Your task to perform on an android device: see creations saved in the google photos Image 0: 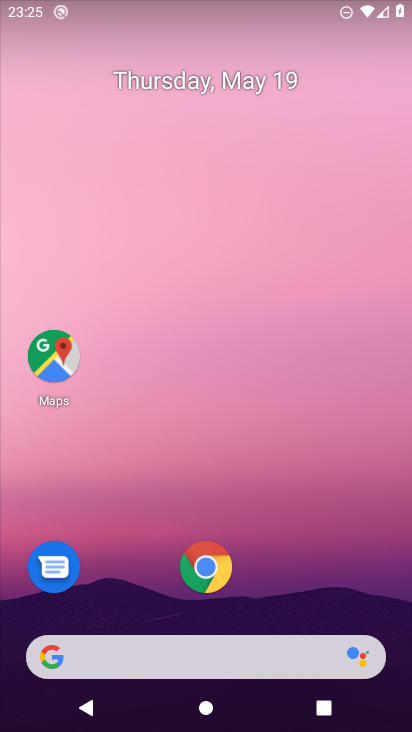
Step 0: press home button
Your task to perform on an android device: see creations saved in the google photos Image 1: 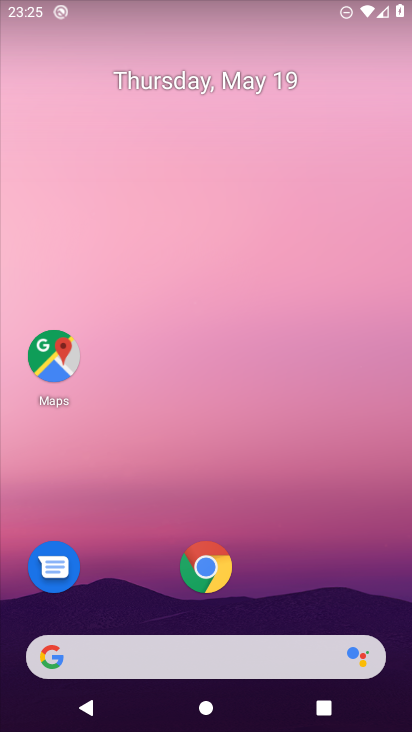
Step 1: drag from (253, 613) to (355, 92)
Your task to perform on an android device: see creations saved in the google photos Image 2: 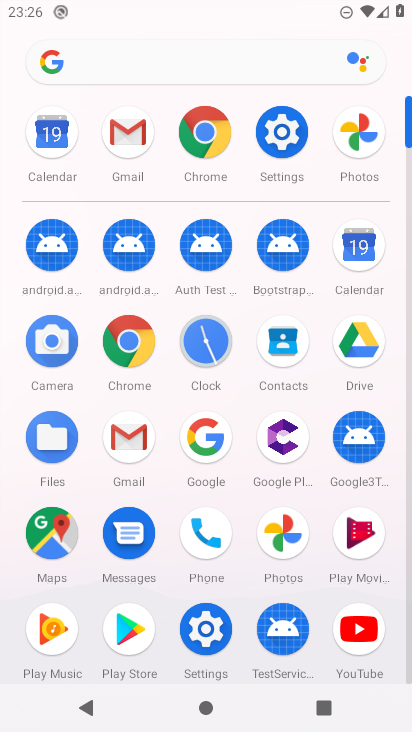
Step 2: click (285, 524)
Your task to perform on an android device: see creations saved in the google photos Image 3: 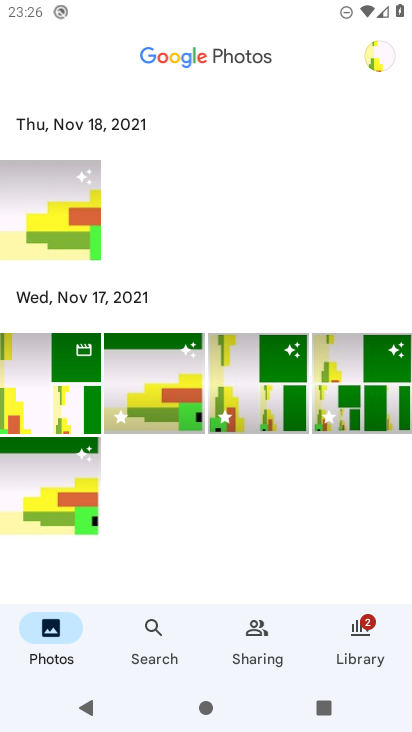
Step 3: click (157, 631)
Your task to perform on an android device: see creations saved in the google photos Image 4: 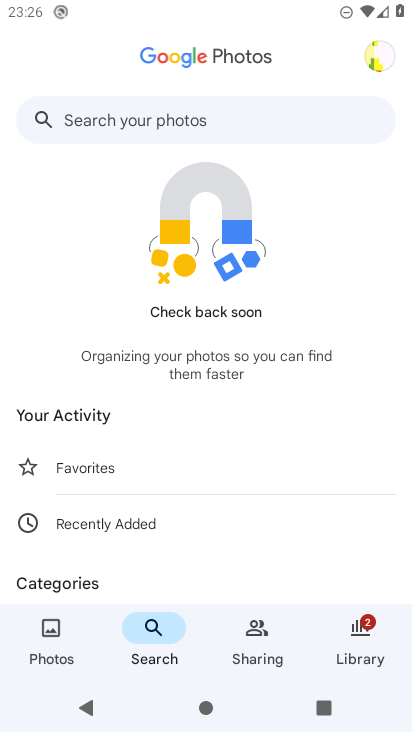
Step 4: drag from (150, 551) to (206, 136)
Your task to perform on an android device: see creations saved in the google photos Image 5: 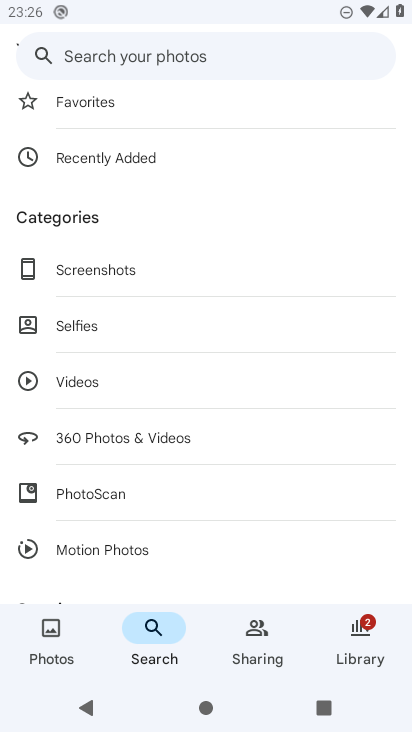
Step 5: drag from (142, 168) to (143, 434)
Your task to perform on an android device: see creations saved in the google photos Image 6: 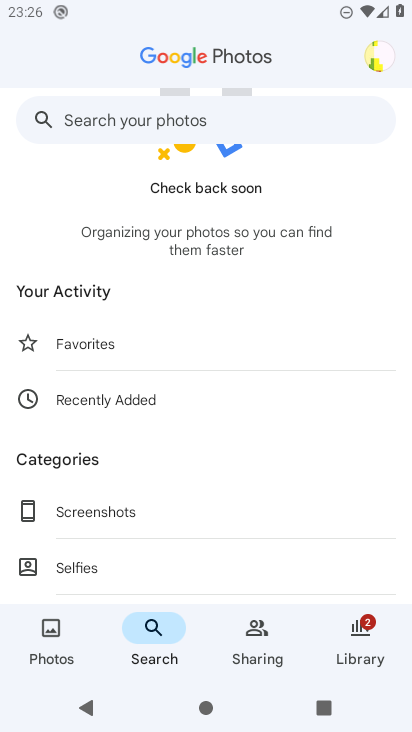
Step 6: drag from (147, 510) to (188, 230)
Your task to perform on an android device: see creations saved in the google photos Image 7: 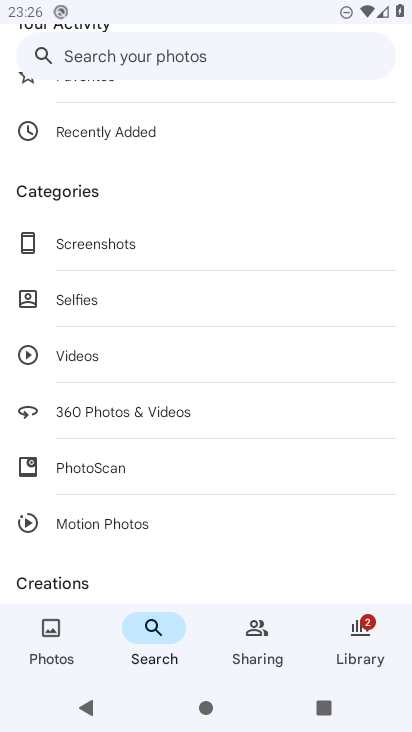
Step 7: drag from (172, 196) to (168, 523)
Your task to perform on an android device: see creations saved in the google photos Image 8: 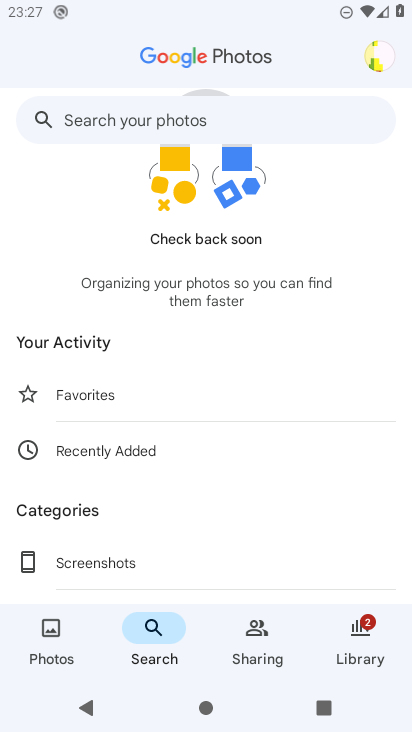
Step 8: click (124, 123)
Your task to perform on an android device: see creations saved in the google photos Image 9: 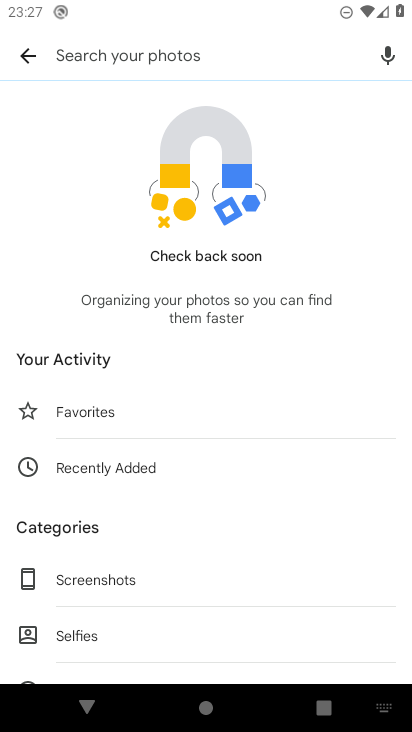
Step 9: type "creation"
Your task to perform on an android device: see creations saved in the google photos Image 10: 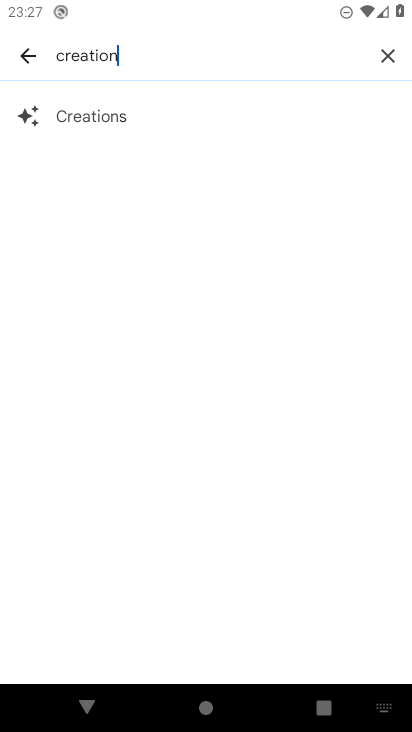
Step 10: click (154, 117)
Your task to perform on an android device: see creations saved in the google photos Image 11: 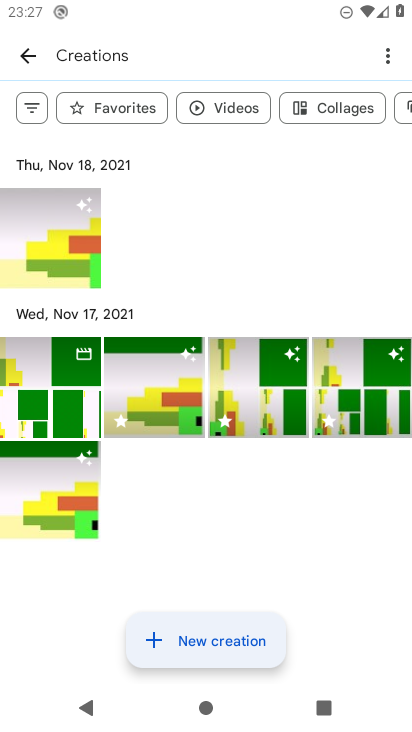
Step 11: task complete